Your task to perform on an android device: toggle wifi Image 0: 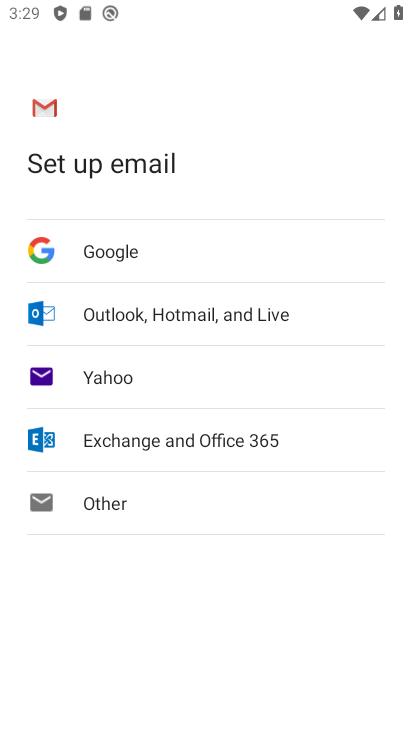
Step 0: press home button
Your task to perform on an android device: toggle wifi Image 1: 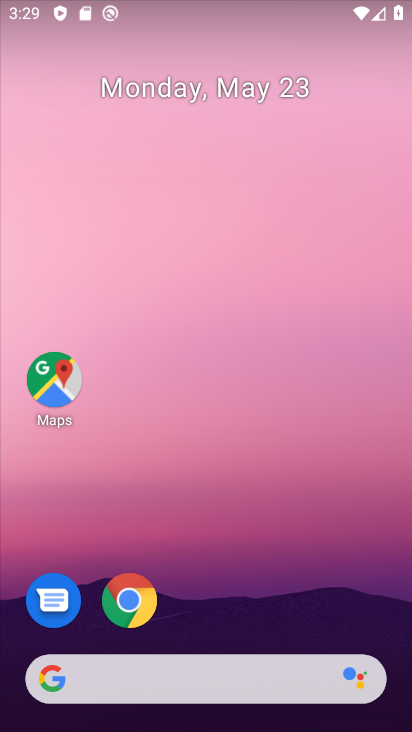
Step 1: drag from (235, 589) to (253, 13)
Your task to perform on an android device: toggle wifi Image 2: 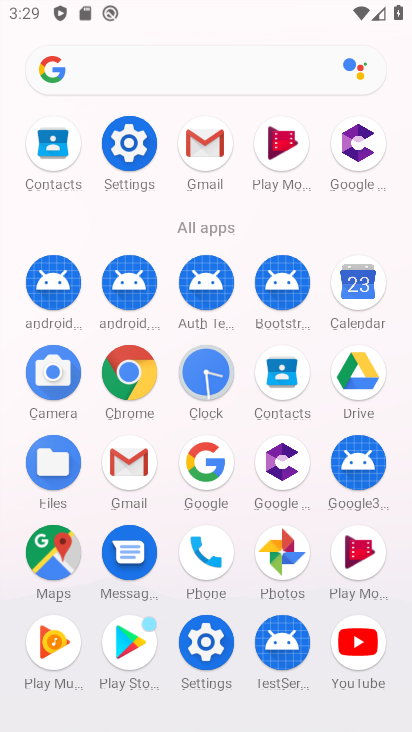
Step 2: click (133, 148)
Your task to perform on an android device: toggle wifi Image 3: 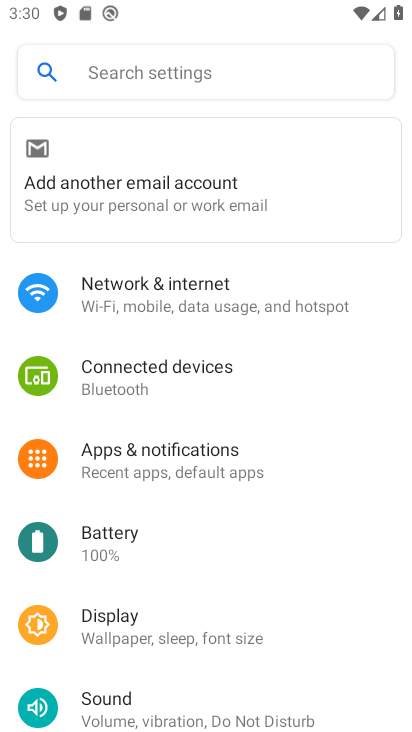
Step 3: click (157, 299)
Your task to perform on an android device: toggle wifi Image 4: 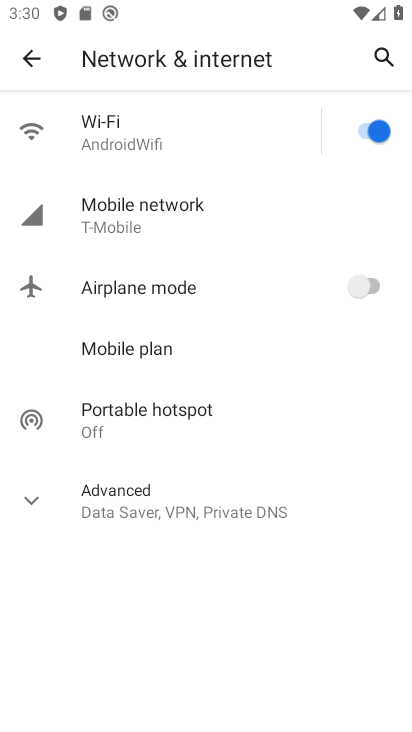
Step 4: click (368, 123)
Your task to perform on an android device: toggle wifi Image 5: 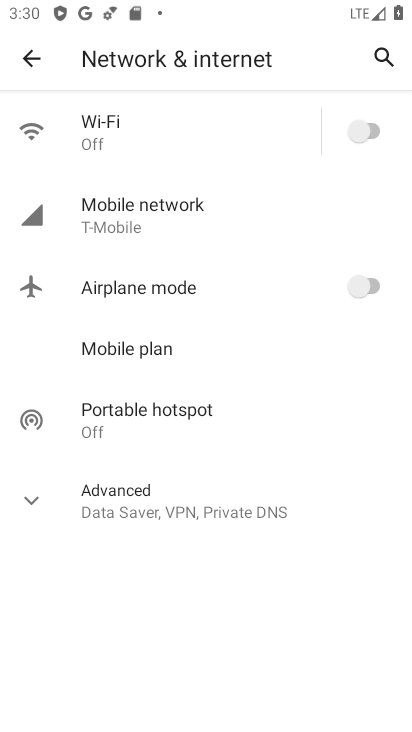
Step 5: task complete